Your task to perform on an android device: Go to internet settings Image 0: 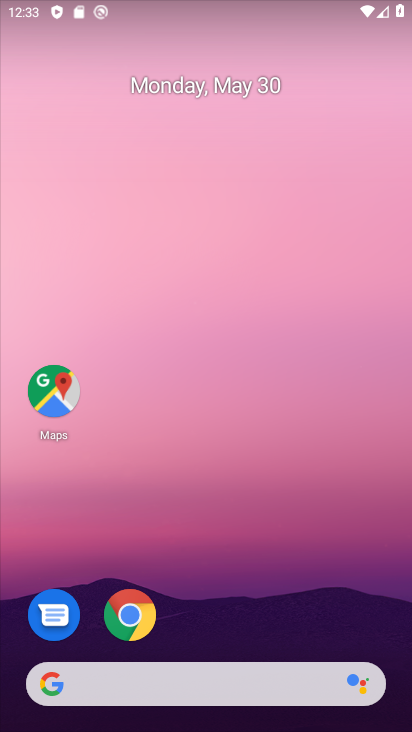
Step 0: drag from (239, 623) to (173, 32)
Your task to perform on an android device: Go to internet settings Image 1: 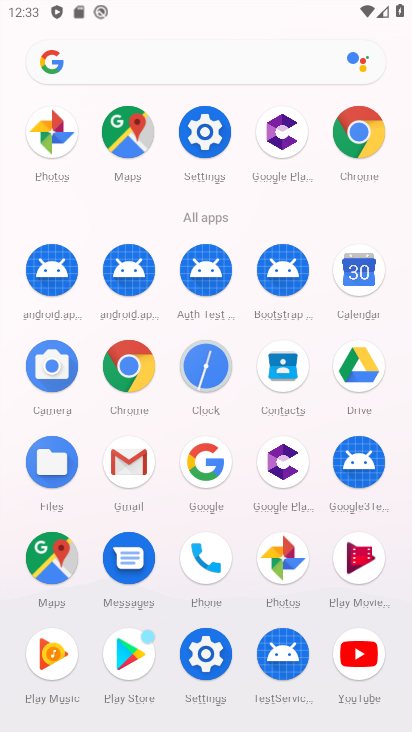
Step 1: click (212, 151)
Your task to perform on an android device: Go to internet settings Image 2: 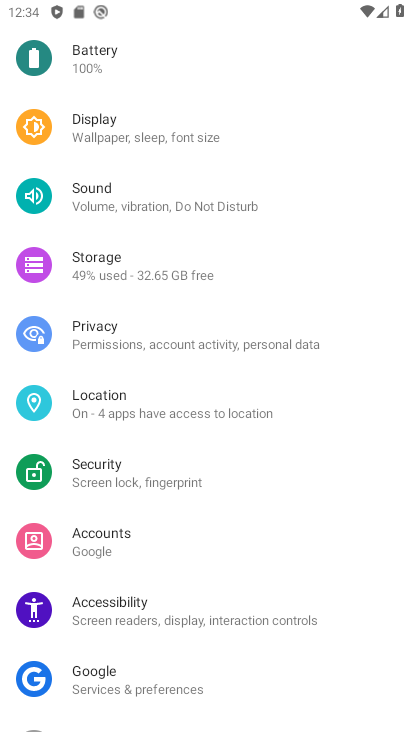
Step 2: drag from (200, 123) to (195, 712)
Your task to perform on an android device: Go to internet settings Image 3: 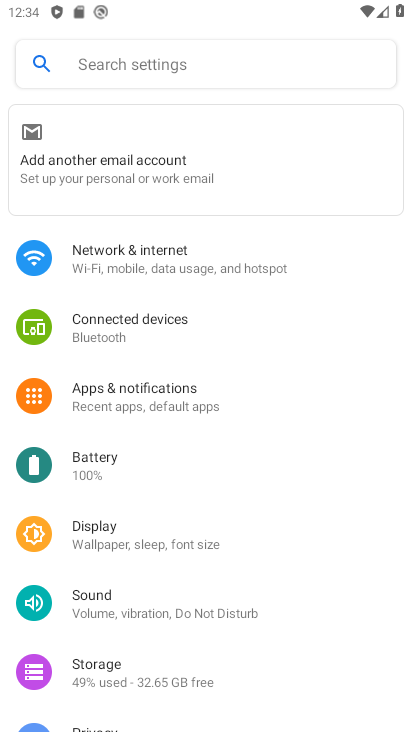
Step 3: click (165, 264)
Your task to perform on an android device: Go to internet settings Image 4: 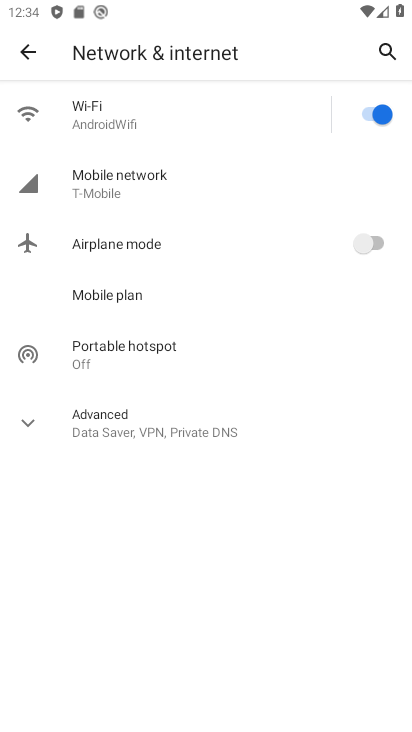
Step 4: task complete